Your task to perform on an android device: Clear the shopping cart on walmart.com. Image 0: 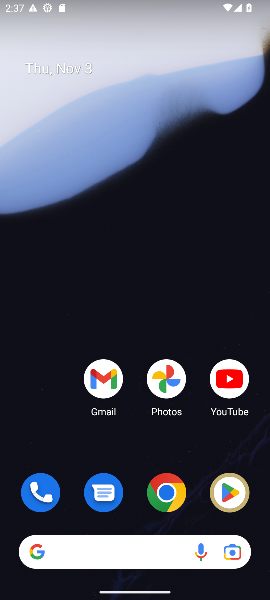
Step 0: click (162, 497)
Your task to perform on an android device: Clear the shopping cart on walmart.com. Image 1: 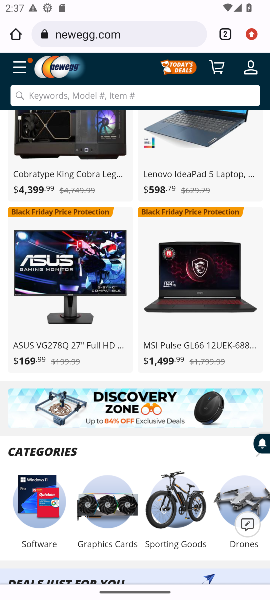
Step 1: click (116, 42)
Your task to perform on an android device: Clear the shopping cart on walmart.com. Image 2: 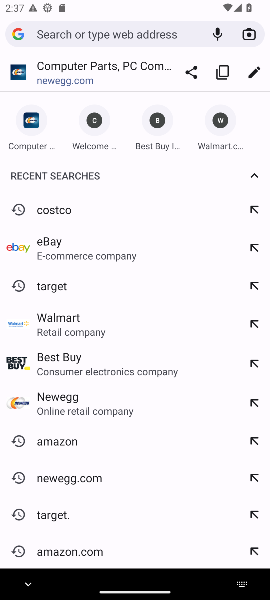
Step 2: type "walmart.com"
Your task to perform on an android device: Clear the shopping cart on walmart.com. Image 3: 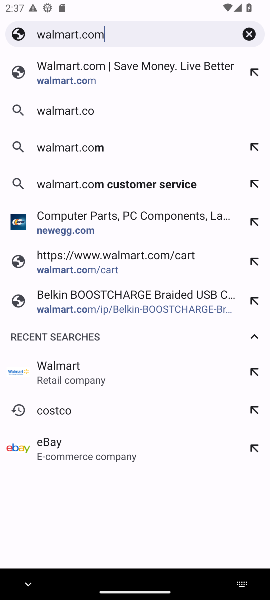
Step 3: type ""
Your task to perform on an android device: Clear the shopping cart on walmart.com. Image 4: 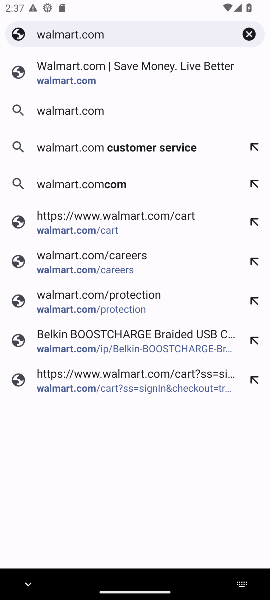
Step 4: click (39, 74)
Your task to perform on an android device: Clear the shopping cart on walmart.com. Image 5: 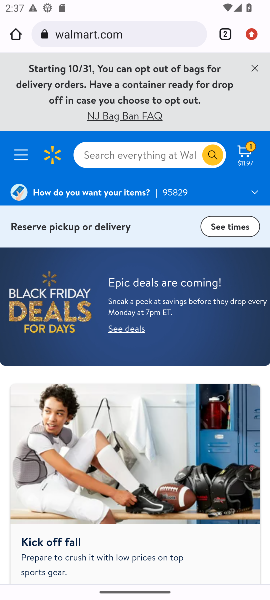
Step 5: click (256, 62)
Your task to perform on an android device: Clear the shopping cart on walmart.com. Image 6: 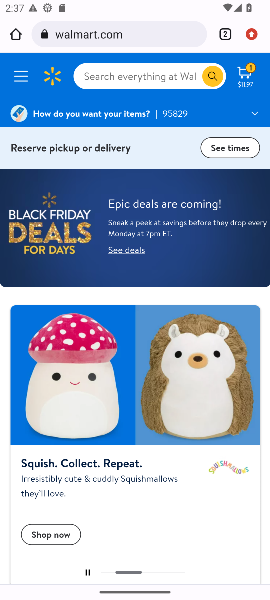
Step 6: click (244, 76)
Your task to perform on an android device: Clear the shopping cart on walmart.com. Image 7: 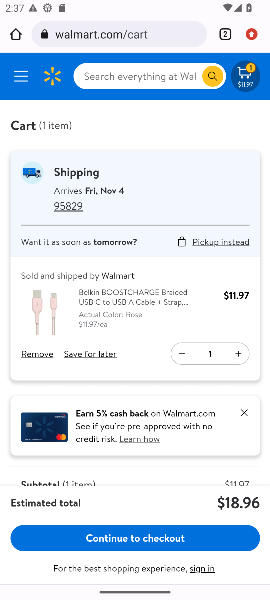
Step 7: click (41, 352)
Your task to perform on an android device: Clear the shopping cart on walmart.com. Image 8: 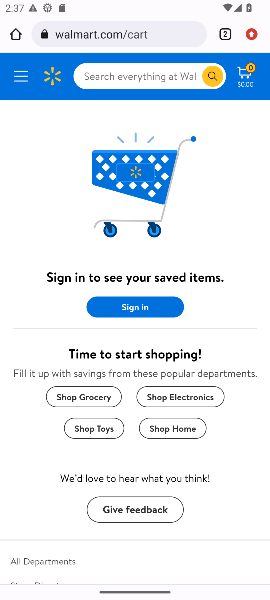
Step 8: task complete